Your task to perform on an android device: turn vacation reply on in the gmail app Image 0: 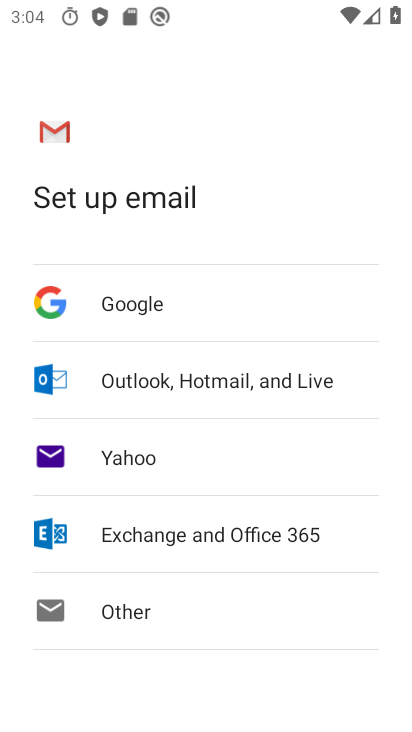
Step 0: press home button
Your task to perform on an android device: turn vacation reply on in the gmail app Image 1: 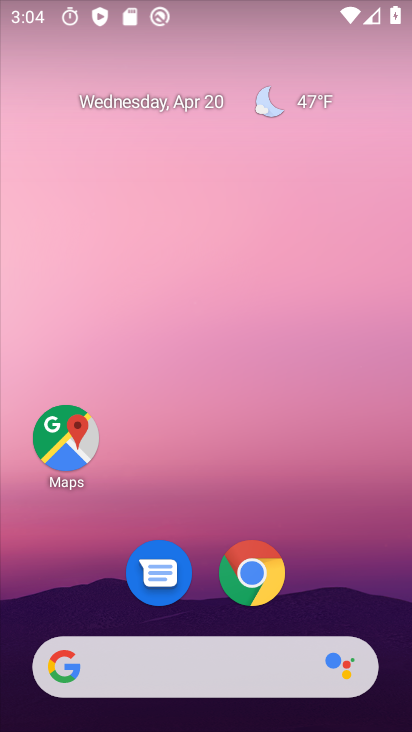
Step 1: drag from (204, 722) to (204, 153)
Your task to perform on an android device: turn vacation reply on in the gmail app Image 2: 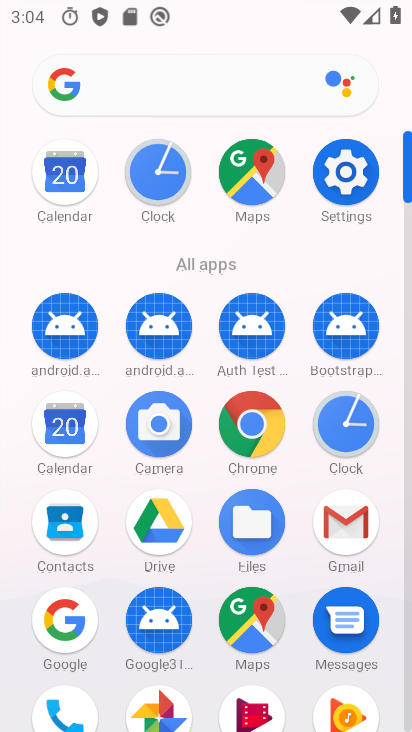
Step 2: click (347, 522)
Your task to perform on an android device: turn vacation reply on in the gmail app Image 3: 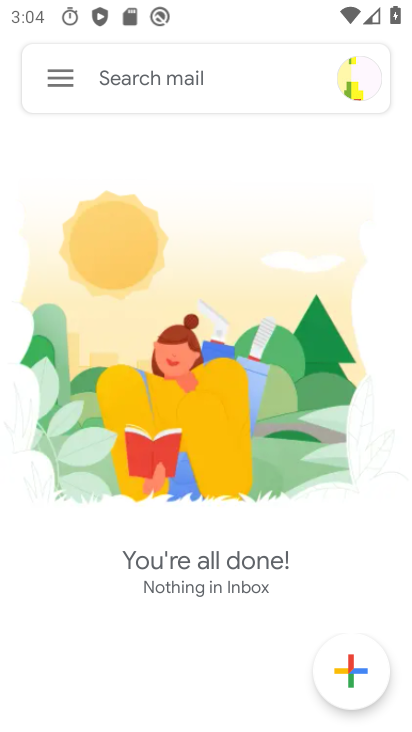
Step 3: click (61, 82)
Your task to perform on an android device: turn vacation reply on in the gmail app Image 4: 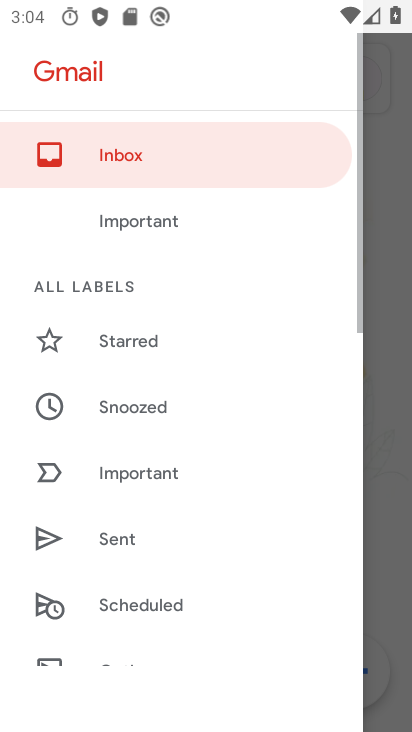
Step 4: drag from (163, 621) to (155, 276)
Your task to perform on an android device: turn vacation reply on in the gmail app Image 5: 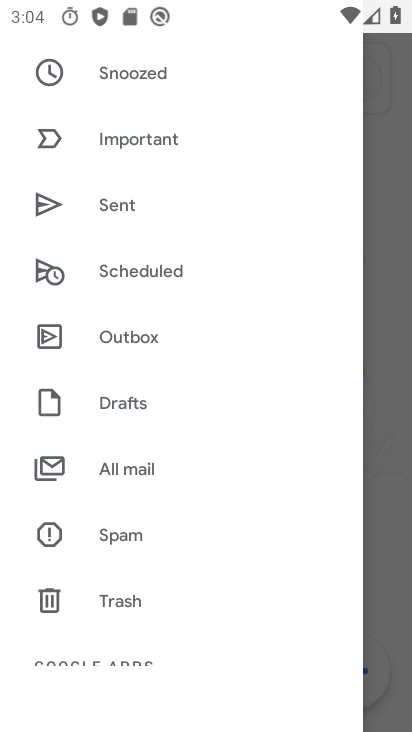
Step 5: drag from (143, 630) to (147, 238)
Your task to perform on an android device: turn vacation reply on in the gmail app Image 6: 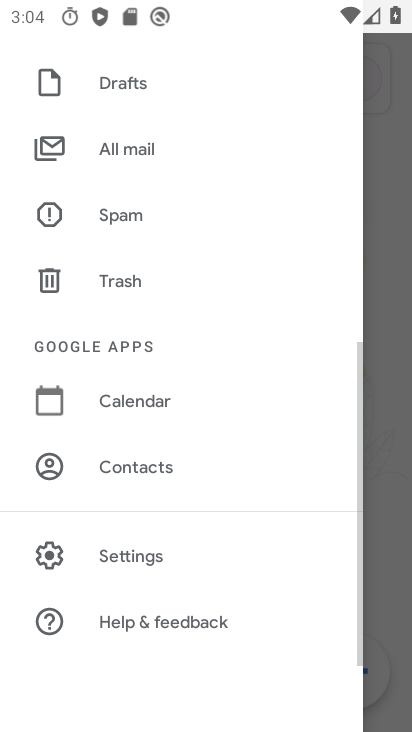
Step 6: click (134, 554)
Your task to perform on an android device: turn vacation reply on in the gmail app Image 7: 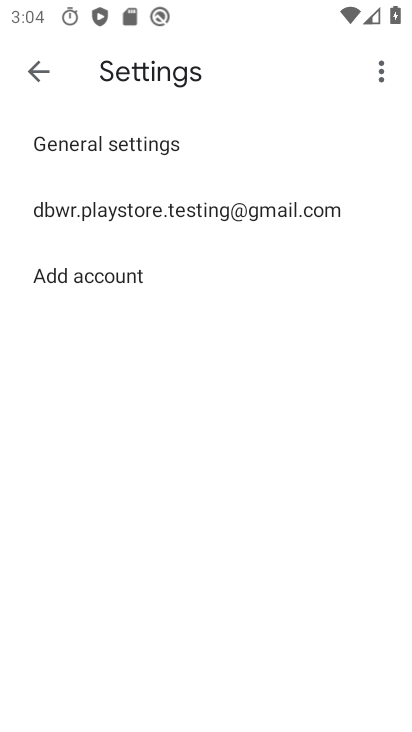
Step 7: click (206, 209)
Your task to perform on an android device: turn vacation reply on in the gmail app Image 8: 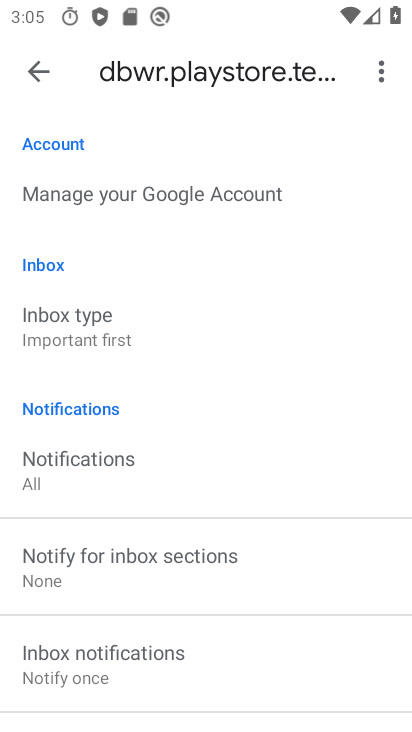
Step 8: drag from (191, 680) to (203, 277)
Your task to perform on an android device: turn vacation reply on in the gmail app Image 9: 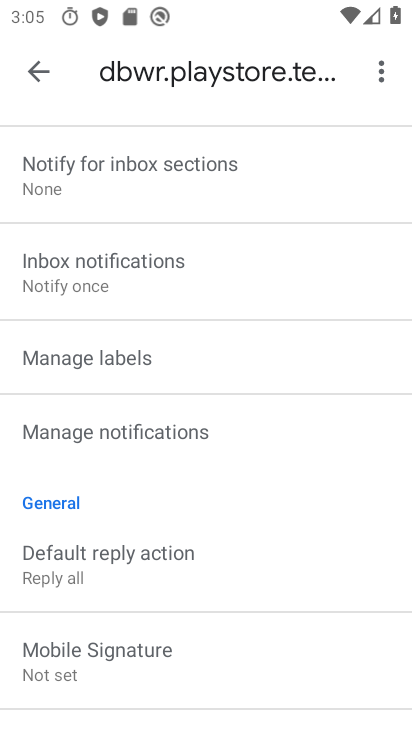
Step 9: drag from (216, 670) to (202, 255)
Your task to perform on an android device: turn vacation reply on in the gmail app Image 10: 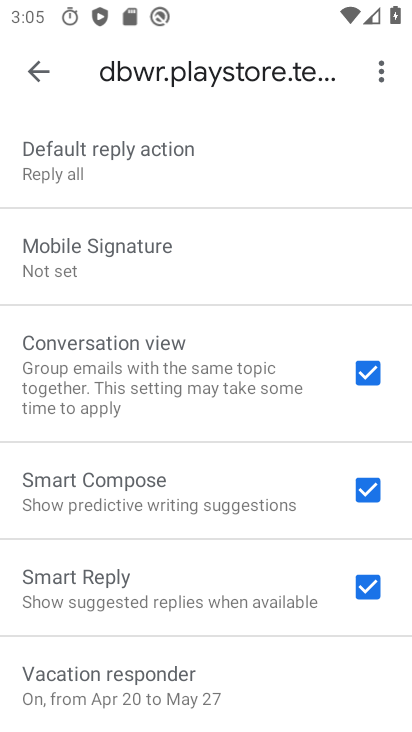
Step 10: drag from (255, 673) to (236, 345)
Your task to perform on an android device: turn vacation reply on in the gmail app Image 11: 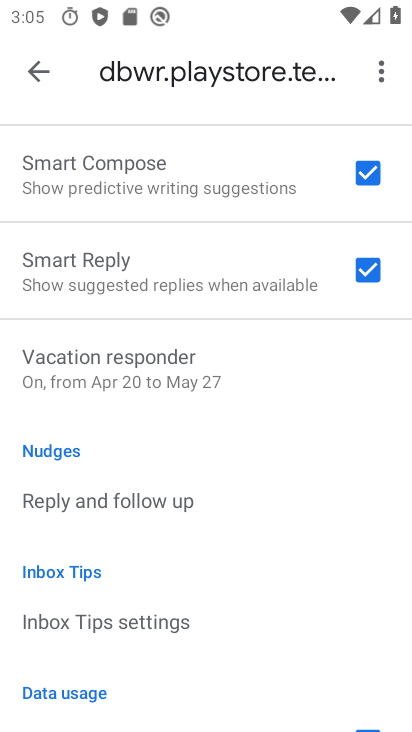
Step 11: click (125, 366)
Your task to perform on an android device: turn vacation reply on in the gmail app Image 12: 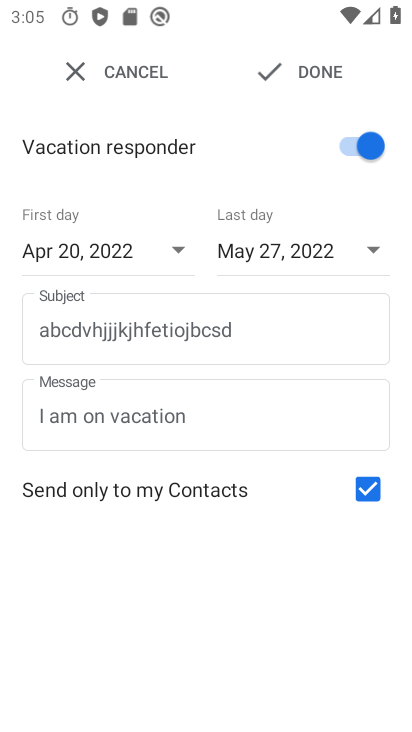
Step 12: task complete